Your task to perform on an android device: Check the news Image 0: 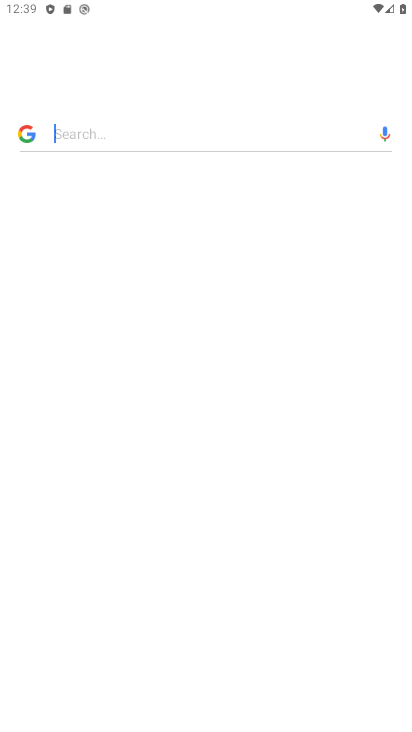
Step 0: drag from (297, 587) to (208, 269)
Your task to perform on an android device: Check the news Image 1: 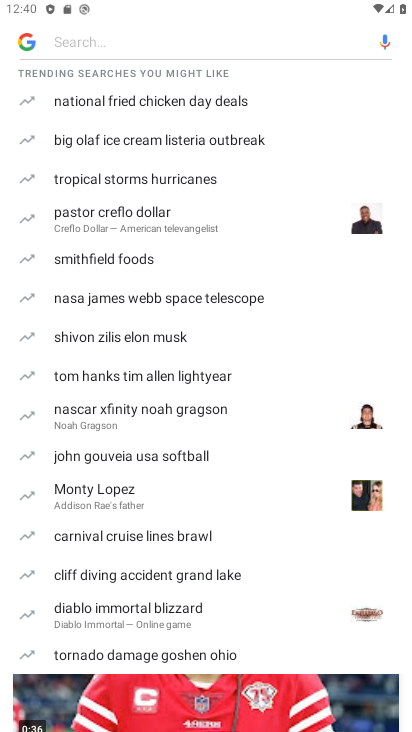
Step 1: type "Check the news"
Your task to perform on an android device: Check the news Image 2: 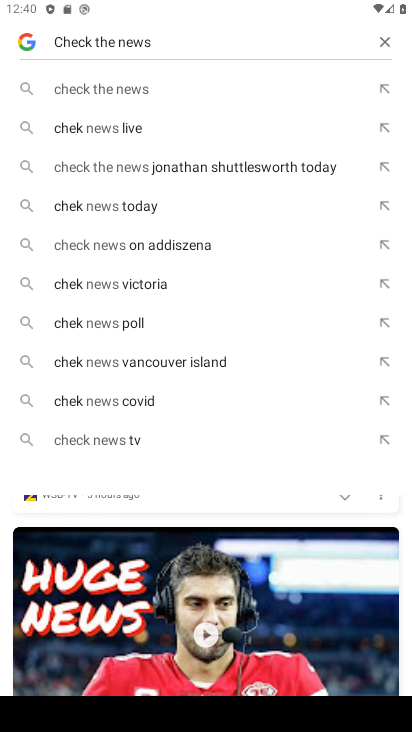
Step 2: click (269, 78)
Your task to perform on an android device: Check the news Image 3: 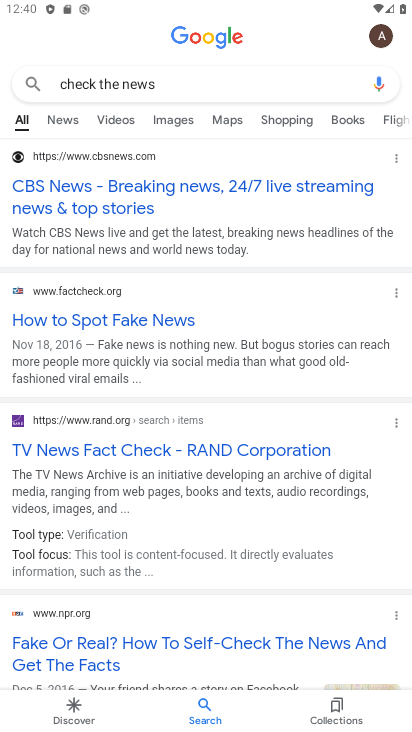
Step 3: click (280, 183)
Your task to perform on an android device: Check the news Image 4: 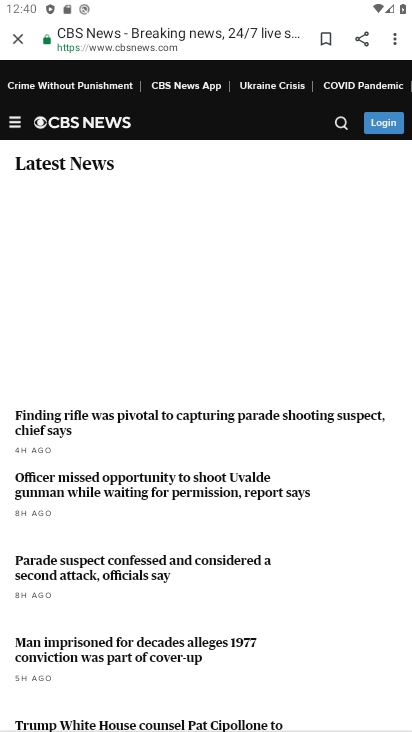
Step 4: task complete